Your task to perform on an android device: turn off wifi Image 0: 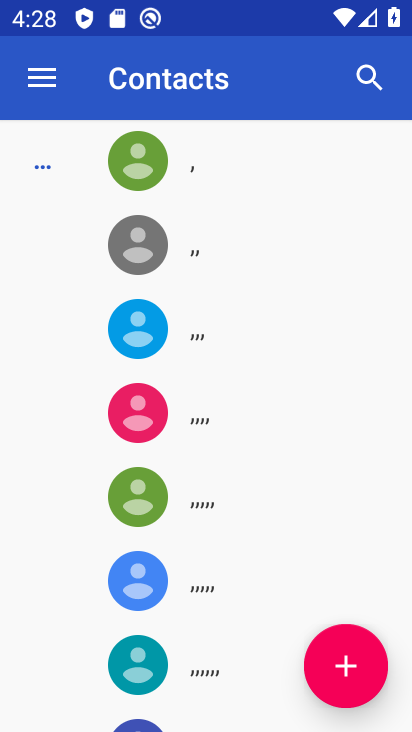
Step 0: press home button
Your task to perform on an android device: turn off wifi Image 1: 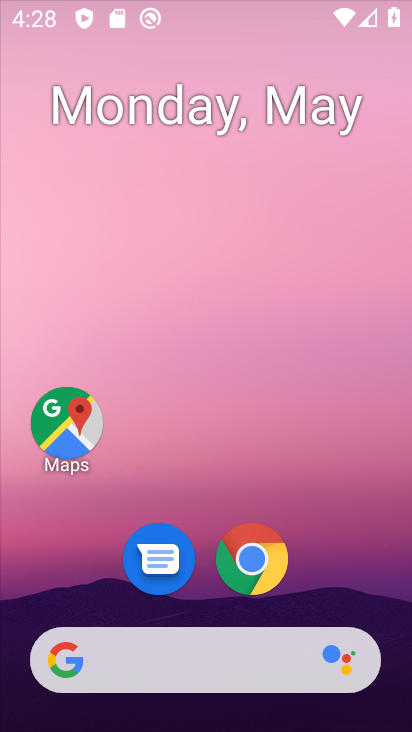
Step 1: drag from (297, 630) to (362, 11)
Your task to perform on an android device: turn off wifi Image 2: 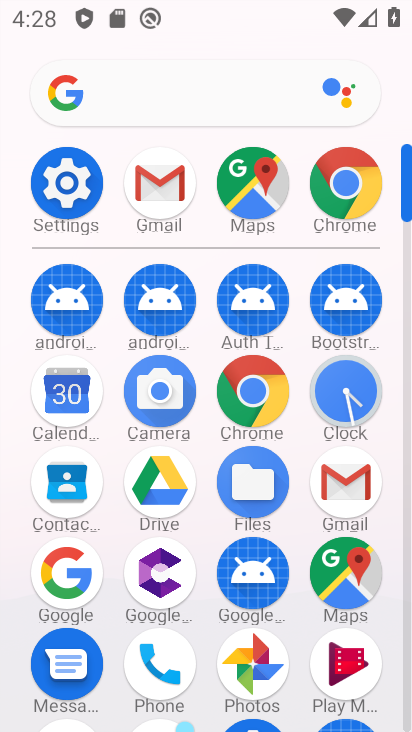
Step 2: click (65, 192)
Your task to perform on an android device: turn off wifi Image 3: 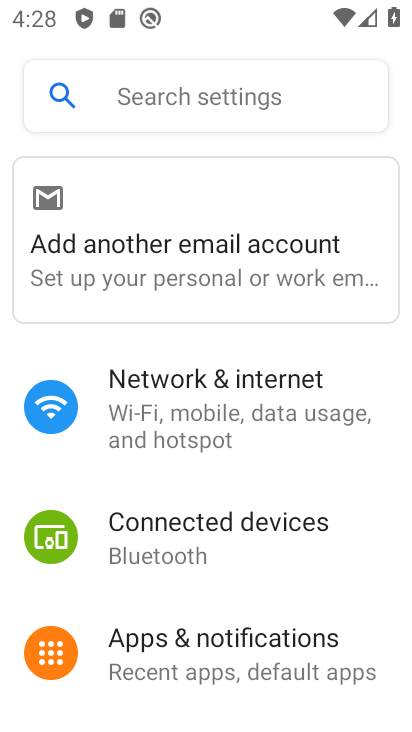
Step 3: click (219, 394)
Your task to perform on an android device: turn off wifi Image 4: 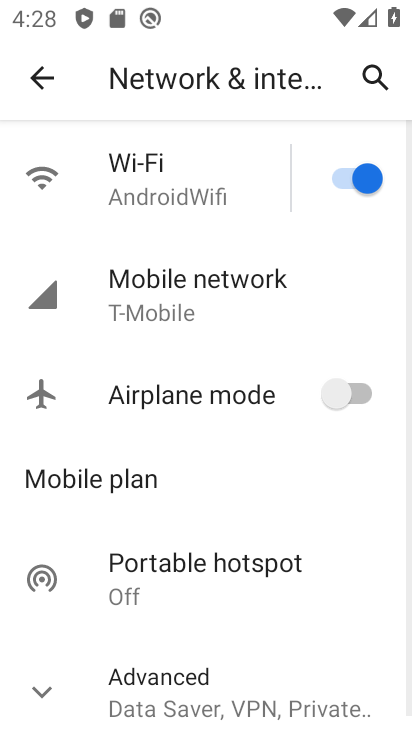
Step 4: click (345, 185)
Your task to perform on an android device: turn off wifi Image 5: 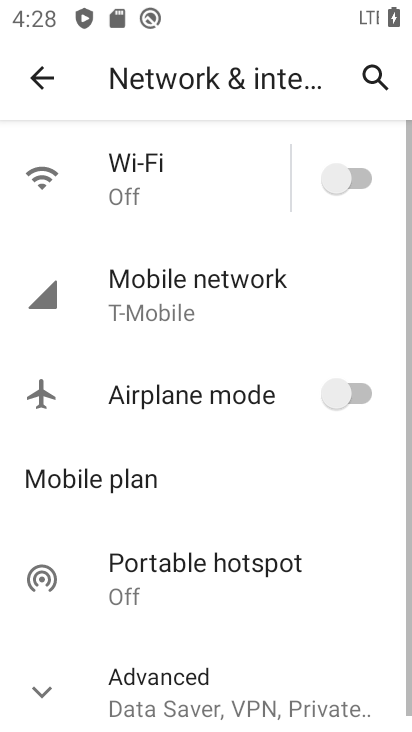
Step 5: task complete